Your task to perform on an android device: Open the web browser Image 0: 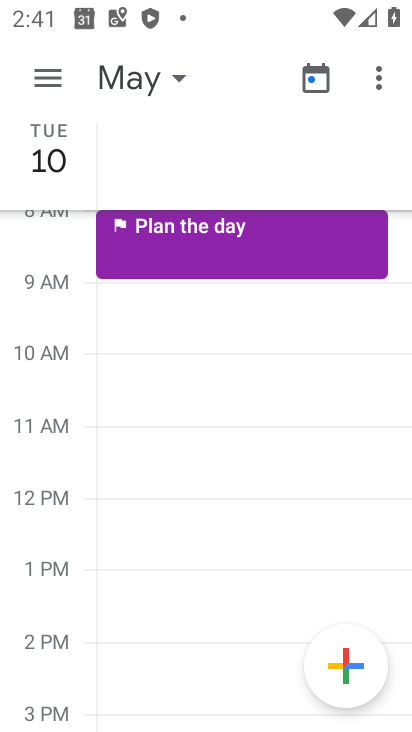
Step 0: press home button
Your task to perform on an android device: Open the web browser Image 1: 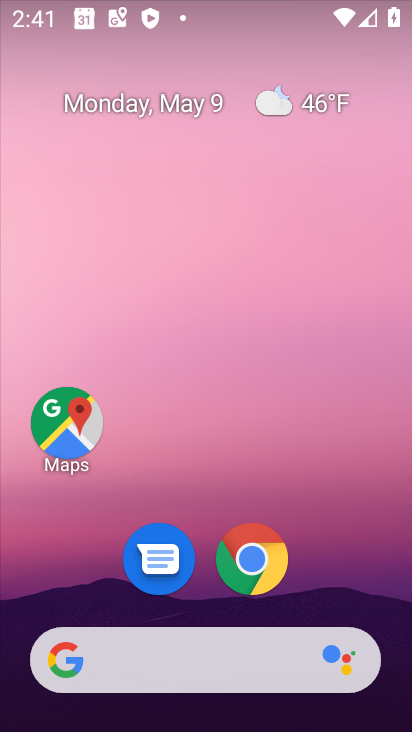
Step 1: click (247, 565)
Your task to perform on an android device: Open the web browser Image 2: 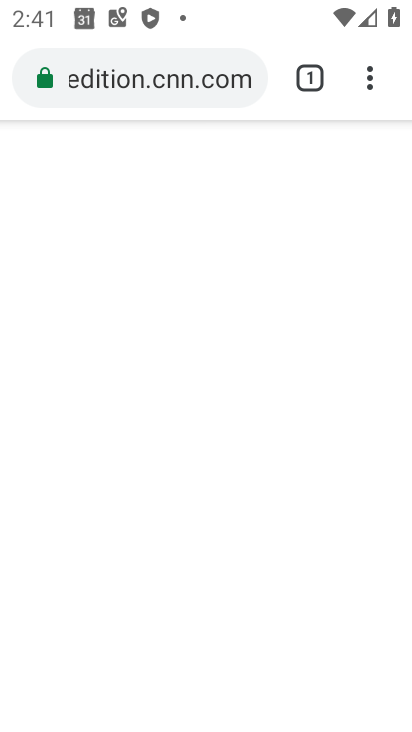
Step 2: task complete